Your task to perform on an android device: Open the stopwatch Image 0: 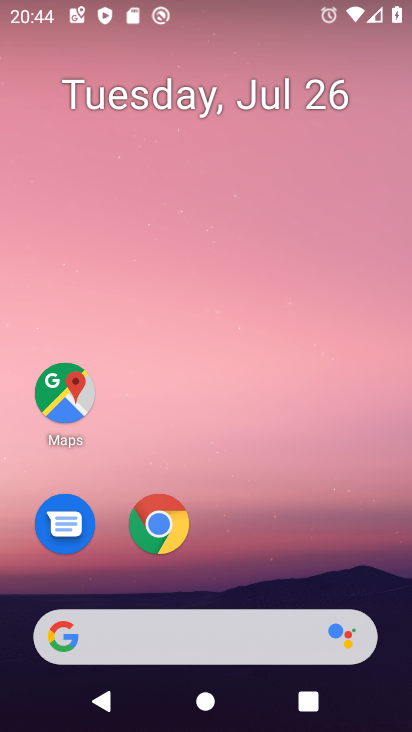
Step 0: drag from (307, 555) to (335, 50)
Your task to perform on an android device: Open the stopwatch Image 1: 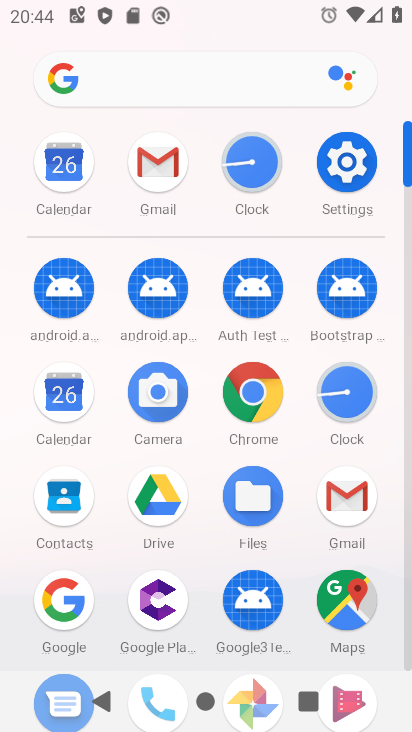
Step 1: click (262, 147)
Your task to perform on an android device: Open the stopwatch Image 2: 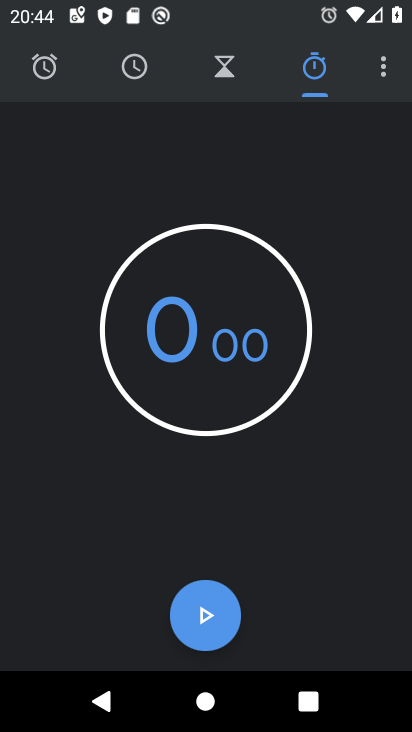
Step 2: click (308, 64)
Your task to perform on an android device: Open the stopwatch Image 3: 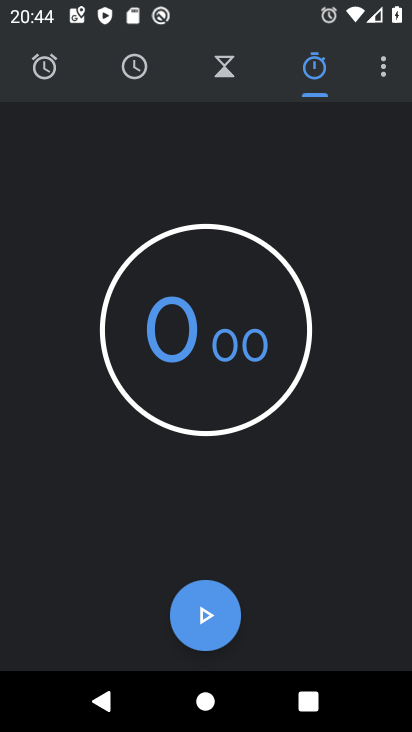
Step 3: click (212, 605)
Your task to perform on an android device: Open the stopwatch Image 4: 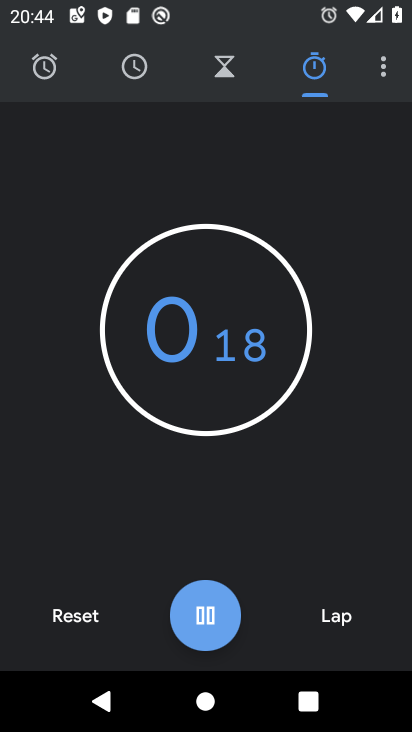
Step 4: click (212, 605)
Your task to perform on an android device: Open the stopwatch Image 5: 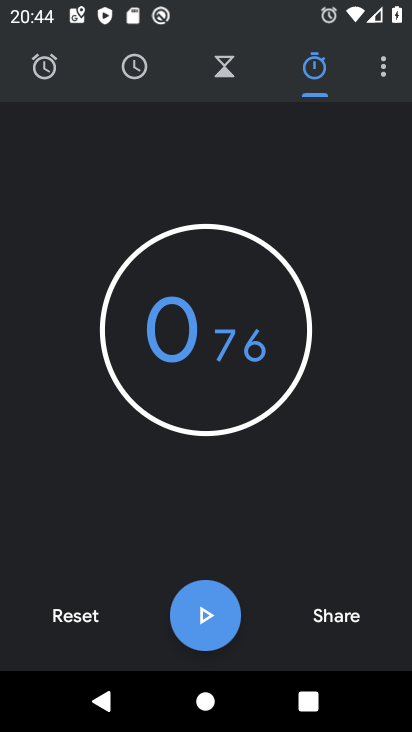
Step 5: task complete